Your task to perform on an android device: change alarm snooze length Image 0: 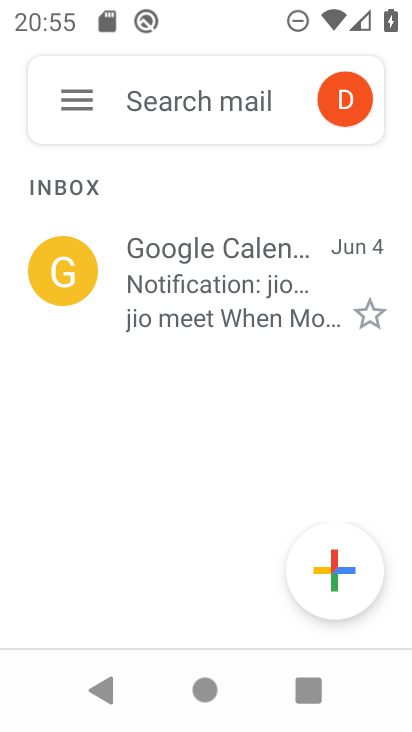
Step 0: press home button
Your task to perform on an android device: change alarm snooze length Image 1: 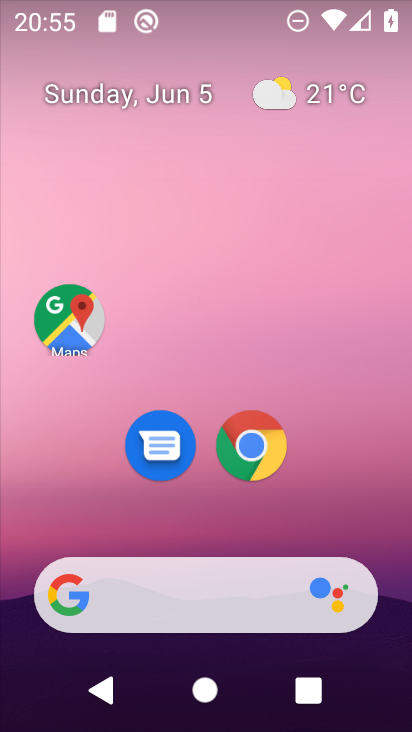
Step 1: drag from (360, 508) to (352, 140)
Your task to perform on an android device: change alarm snooze length Image 2: 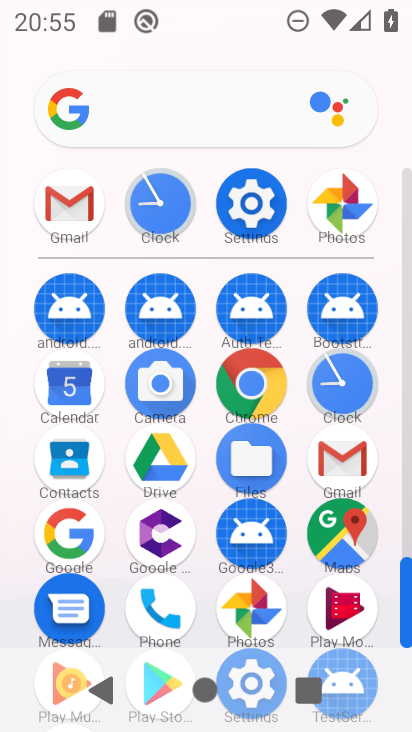
Step 2: click (173, 200)
Your task to perform on an android device: change alarm snooze length Image 3: 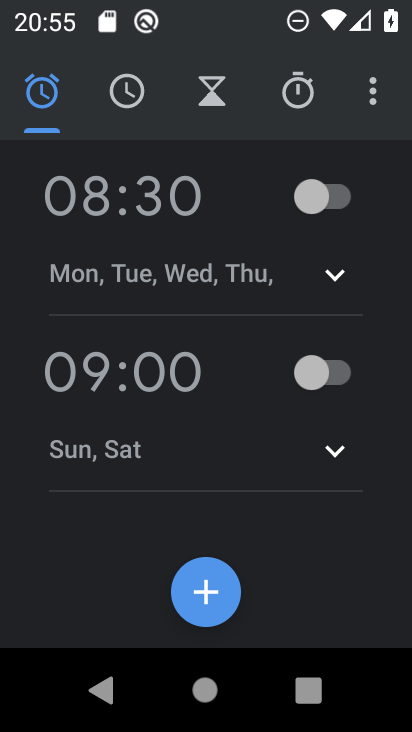
Step 3: click (374, 100)
Your task to perform on an android device: change alarm snooze length Image 4: 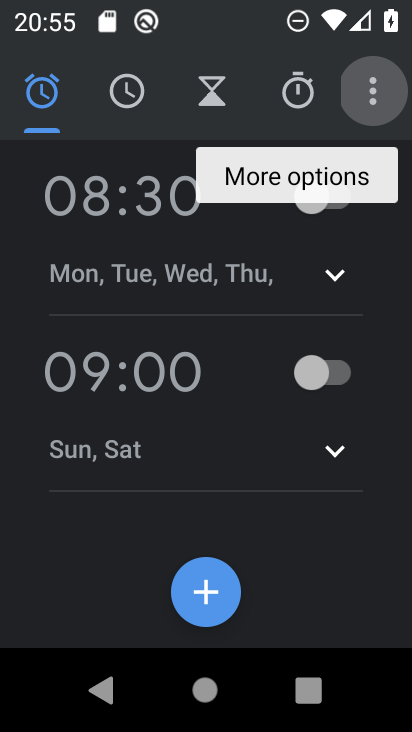
Step 4: click (374, 100)
Your task to perform on an android device: change alarm snooze length Image 5: 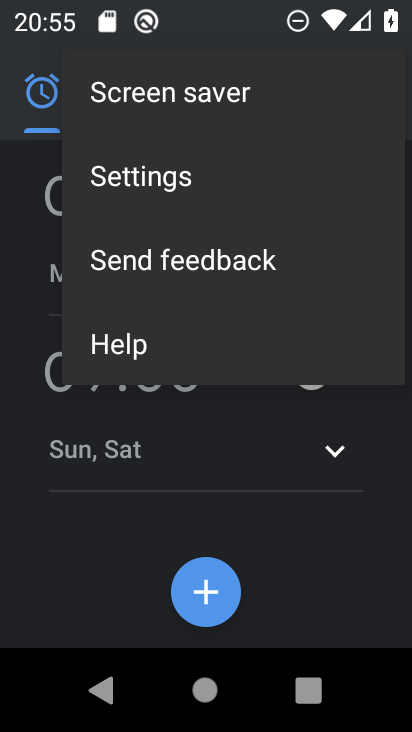
Step 5: click (160, 170)
Your task to perform on an android device: change alarm snooze length Image 6: 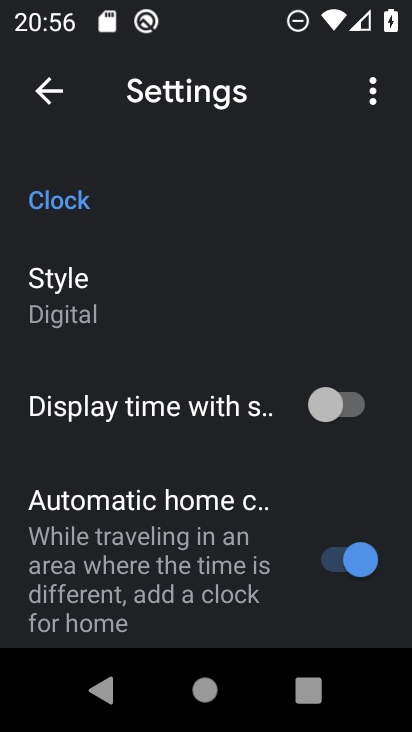
Step 6: drag from (146, 438) to (220, 133)
Your task to perform on an android device: change alarm snooze length Image 7: 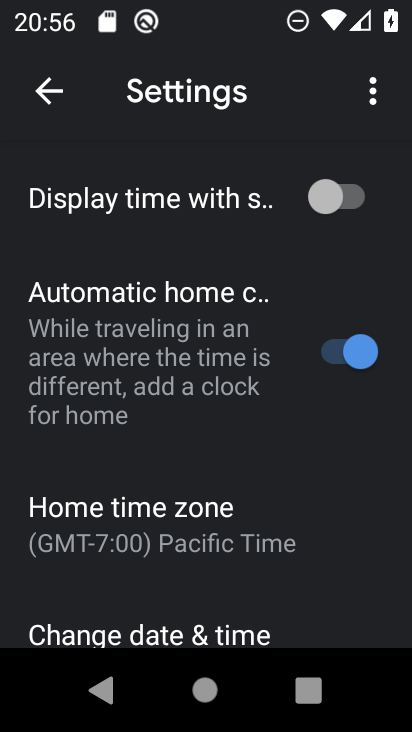
Step 7: drag from (23, 603) to (96, 219)
Your task to perform on an android device: change alarm snooze length Image 8: 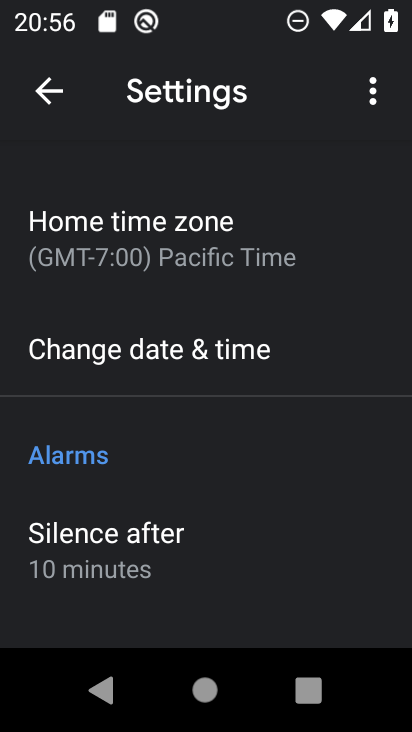
Step 8: drag from (281, 558) to (282, 199)
Your task to perform on an android device: change alarm snooze length Image 9: 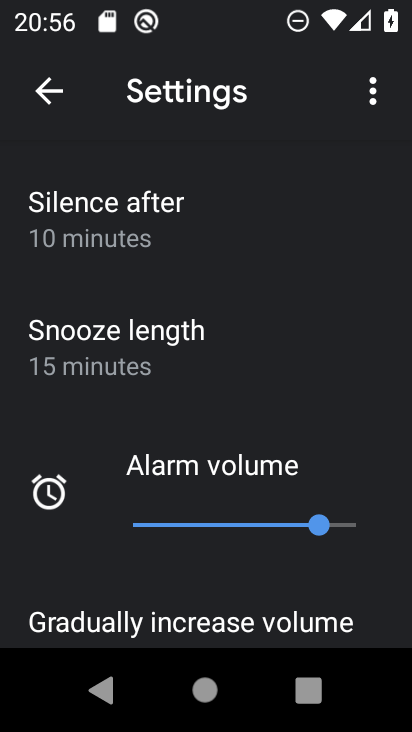
Step 9: click (185, 367)
Your task to perform on an android device: change alarm snooze length Image 10: 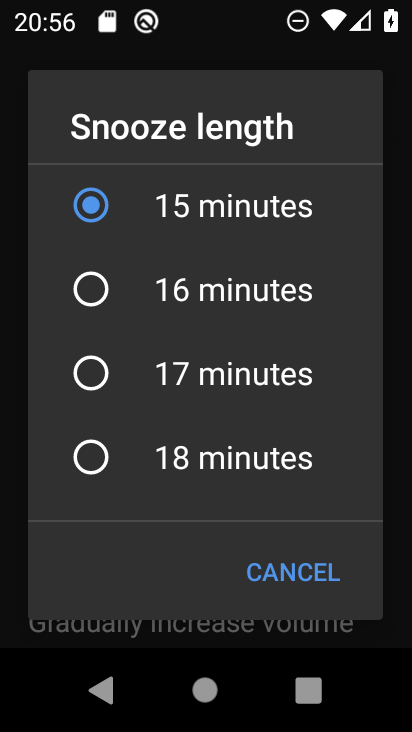
Step 10: click (99, 456)
Your task to perform on an android device: change alarm snooze length Image 11: 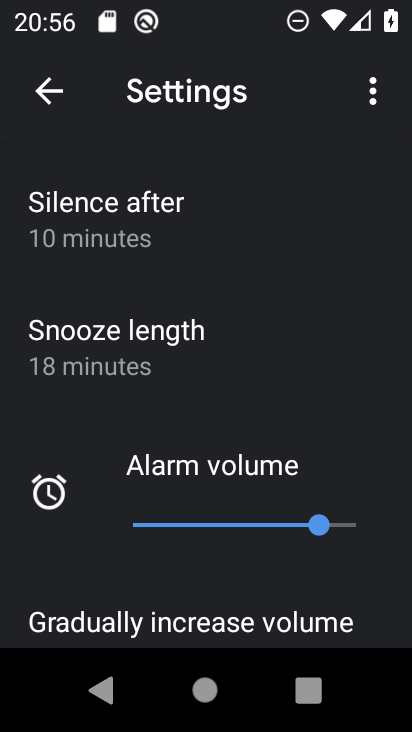
Step 11: task complete